Your task to perform on an android device: Is it going to rain this weekend? Image 0: 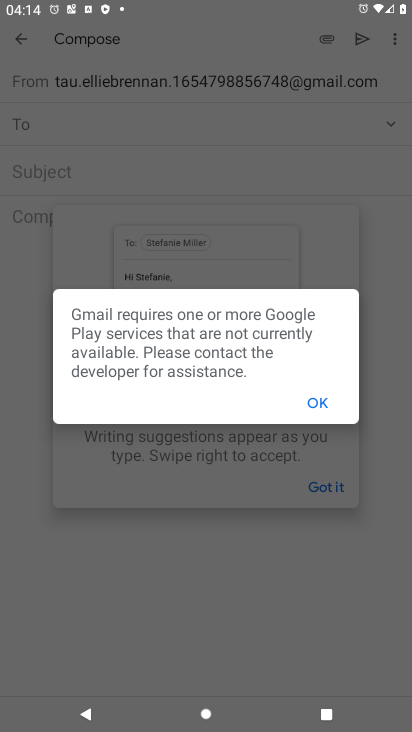
Step 0: press home button
Your task to perform on an android device: Is it going to rain this weekend? Image 1: 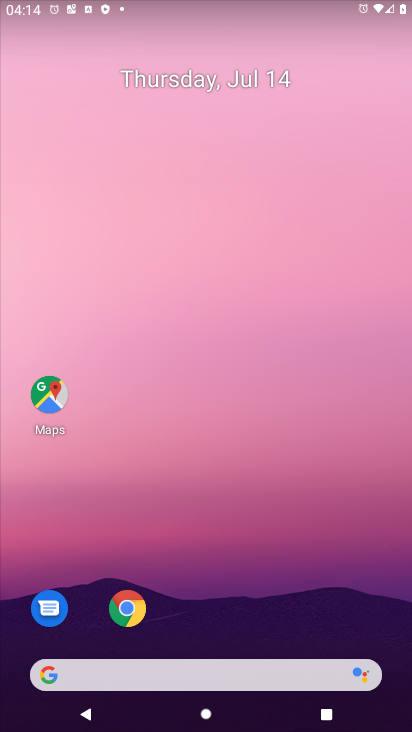
Step 1: task complete